Your task to perform on an android device: find photos in the google photos app Image 0: 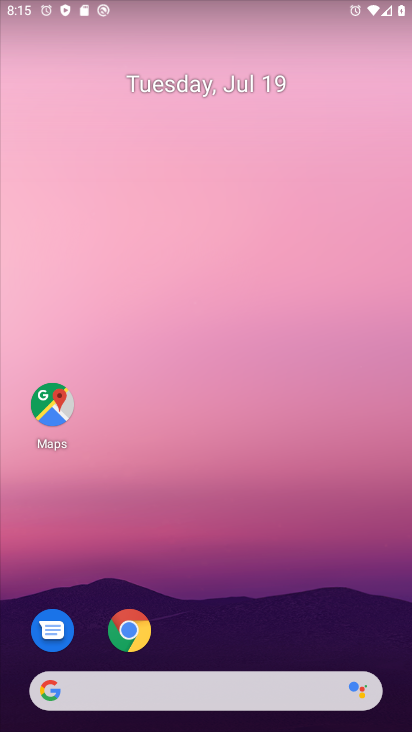
Step 0: drag from (255, 569) to (276, 300)
Your task to perform on an android device: find photos in the google photos app Image 1: 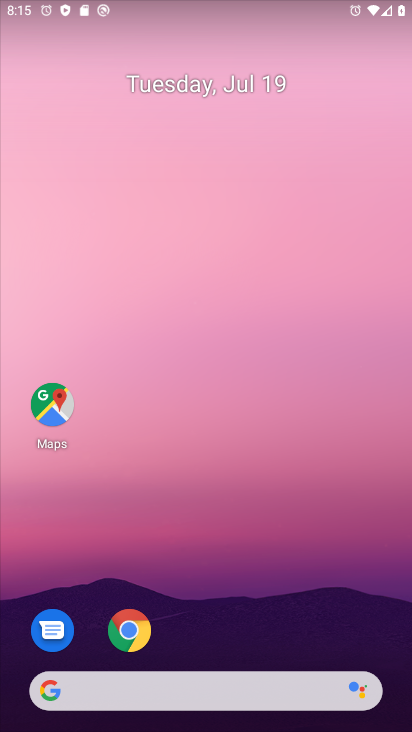
Step 1: drag from (249, 532) to (223, 186)
Your task to perform on an android device: find photos in the google photos app Image 2: 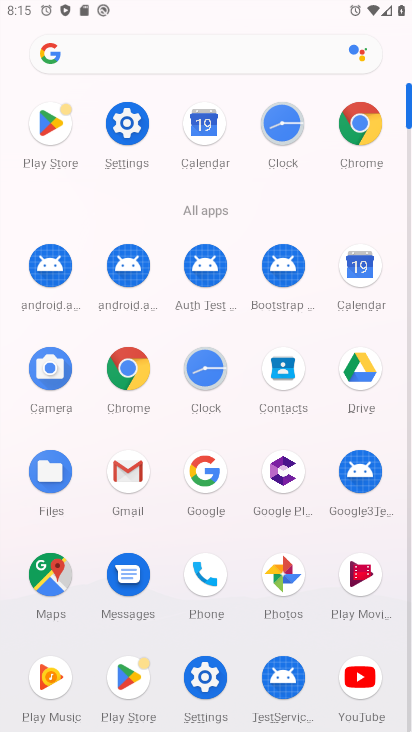
Step 2: click (283, 579)
Your task to perform on an android device: find photos in the google photos app Image 3: 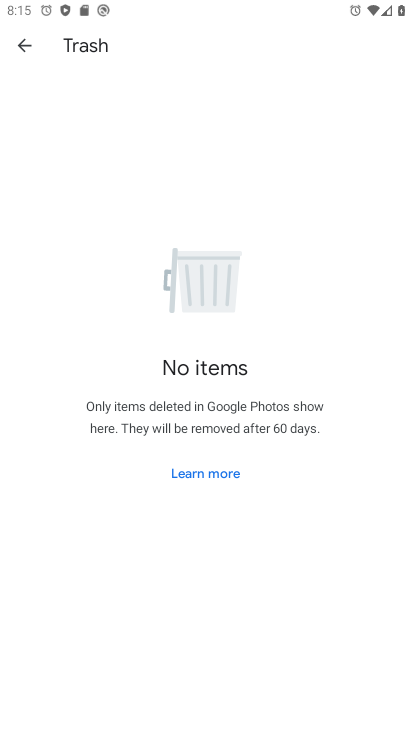
Step 3: task complete